Your task to perform on an android device: change the clock display to analog Image 0: 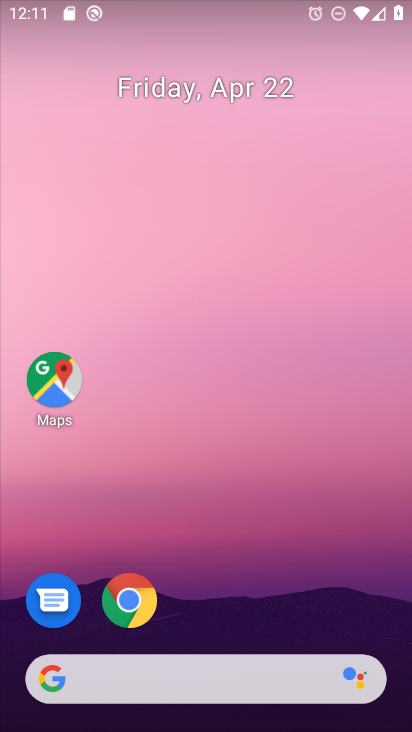
Step 0: drag from (239, 595) to (224, 117)
Your task to perform on an android device: change the clock display to analog Image 1: 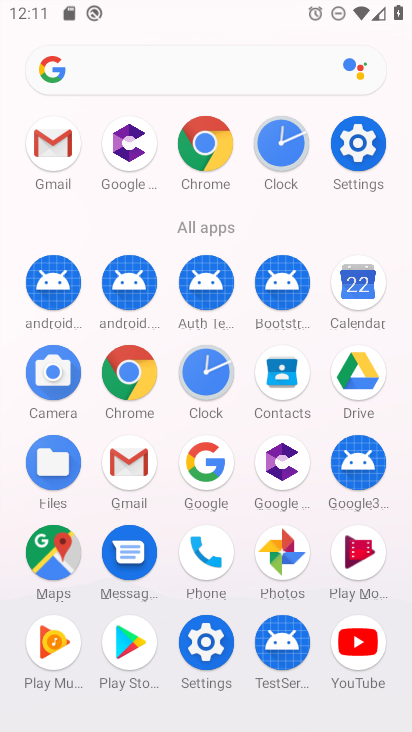
Step 1: click (283, 146)
Your task to perform on an android device: change the clock display to analog Image 2: 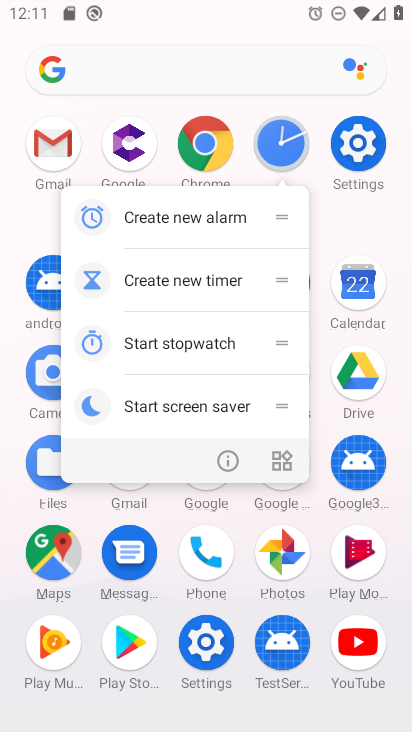
Step 2: click (283, 146)
Your task to perform on an android device: change the clock display to analog Image 3: 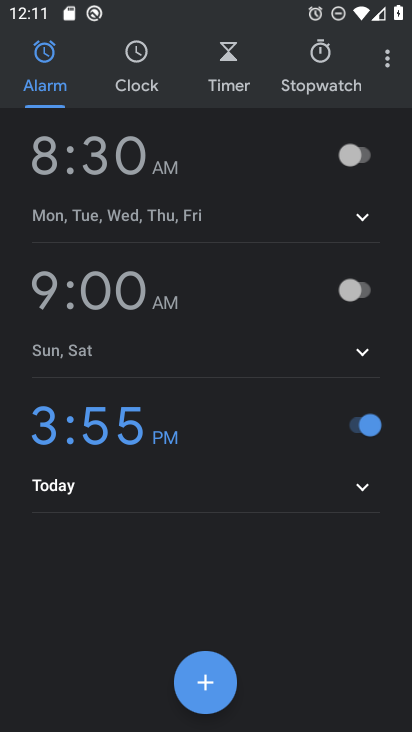
Step 3: click (393, 65)
Your task to perform on an android device: change the clock display to analog Image 4: 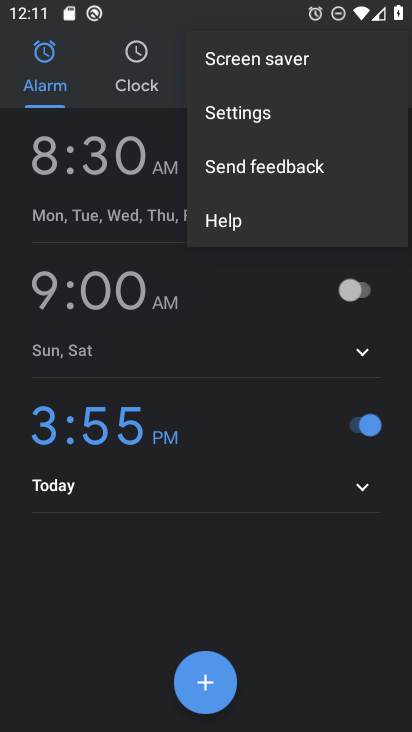
Step 4: click (266, 117)
Your task to perform on an android device: change the clock display to analog Image 5: 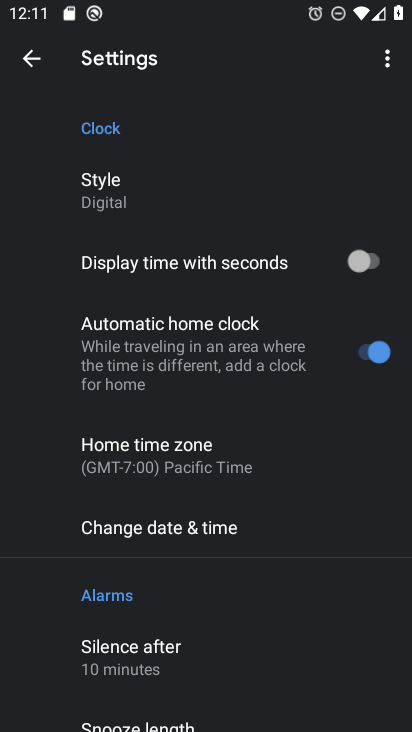
Step 5: click (200, 188)
Your task to perform on an android device: change the clock display to analog Image 6: 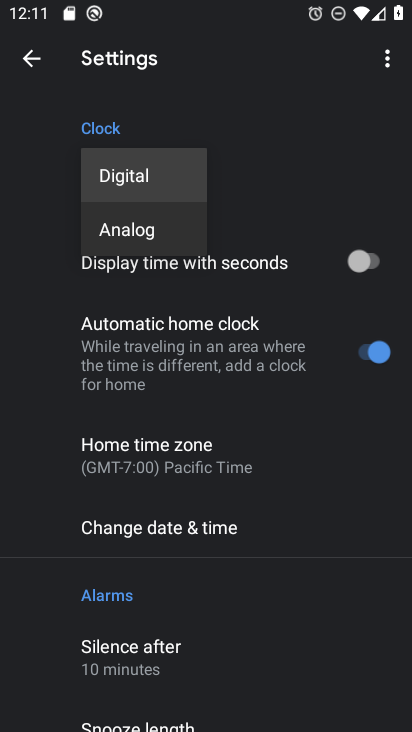
Step 6: click (145, 240)
Your task to perform on an android device: change the clock display to analog Image 7: 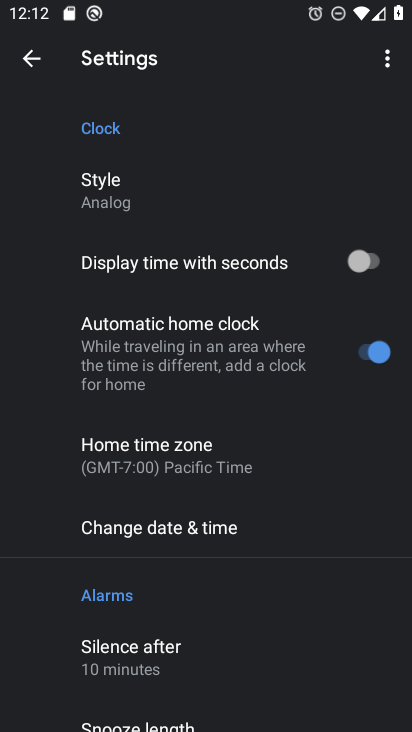
Step 7: task complete